Your task to perform on an android device: Open maps Image 0: 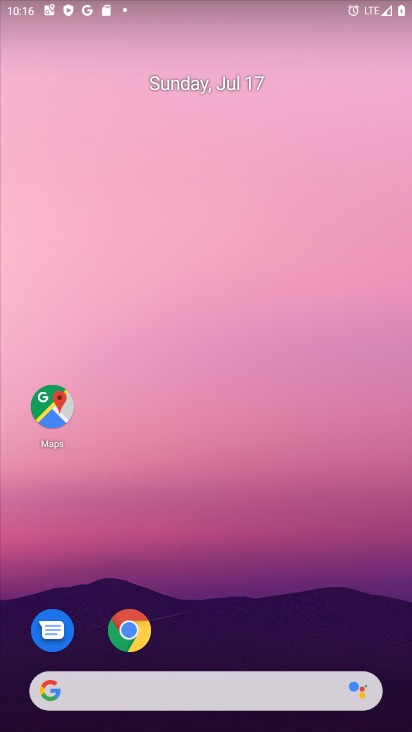
Step 0: press home button
Your task to perform on an android device: Open maps Image 1: 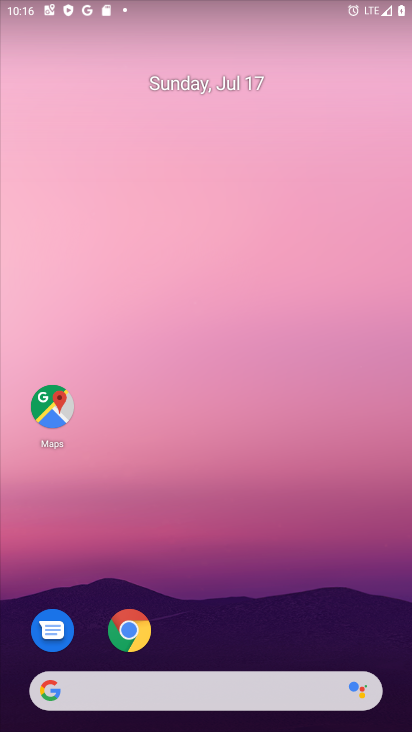
Step 1: click (52, 403)
Your task to perform on an android device: Open maps Image 2: 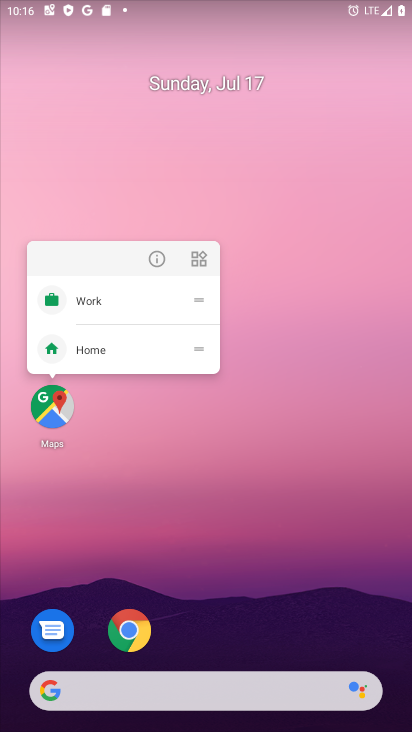
Step 2: click (56, 391)
Your task to perform on an android device: Open maps Image 3: 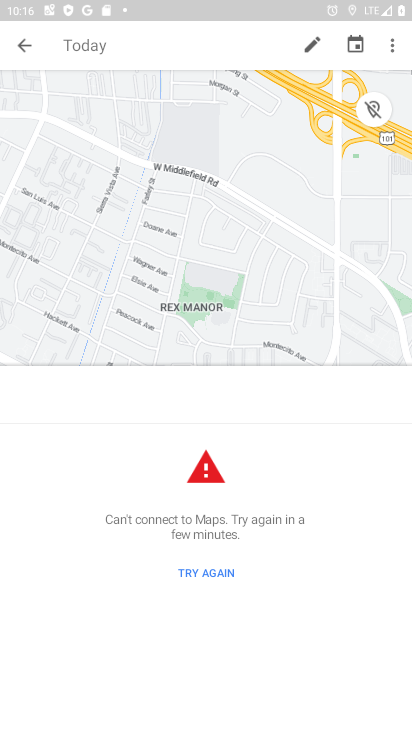
Step 3: click (25, 44)
Your task to perform on an android device: Open maps Image 4: 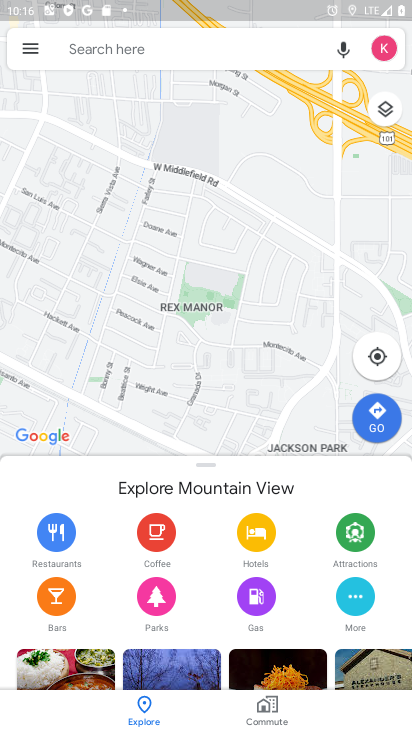
Step 4: click (269, 706)
Your task to perform on an android device: Open maps Image 5: 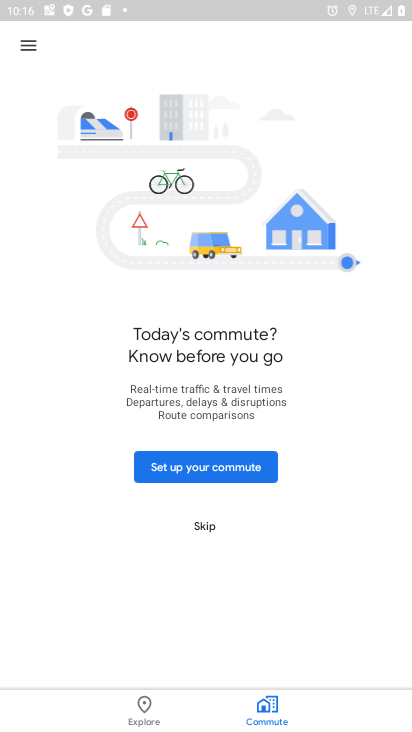
Step 5: click (139, 717)
Your task to perform on an android device: Open maps Image 6: 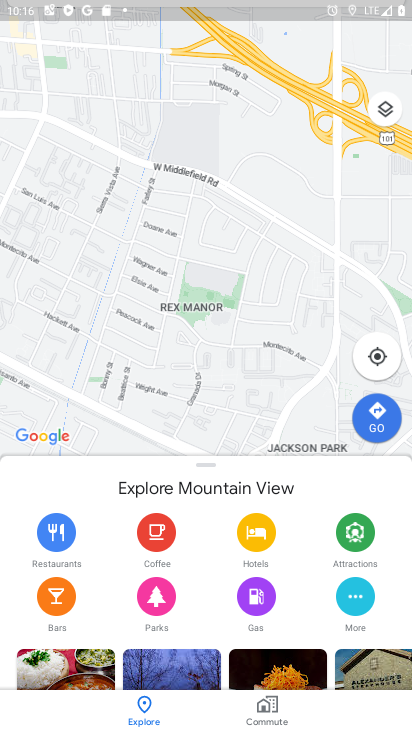
Step 6: task complete